Your task to perform on an android device: add a contact Image 0: 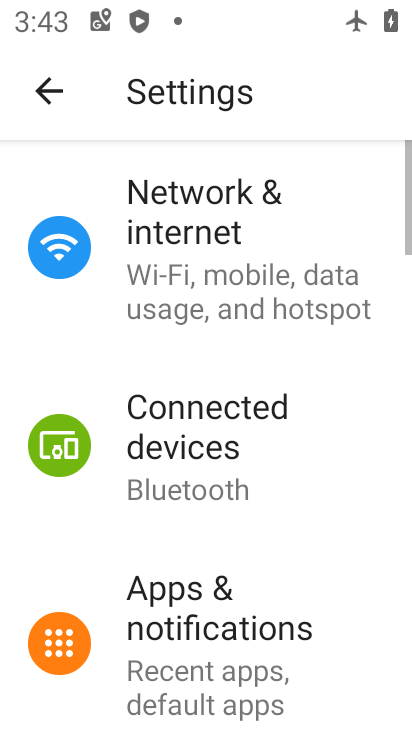
Step 0: press home button
Your task to perform on an android device: add a contact Image 1: 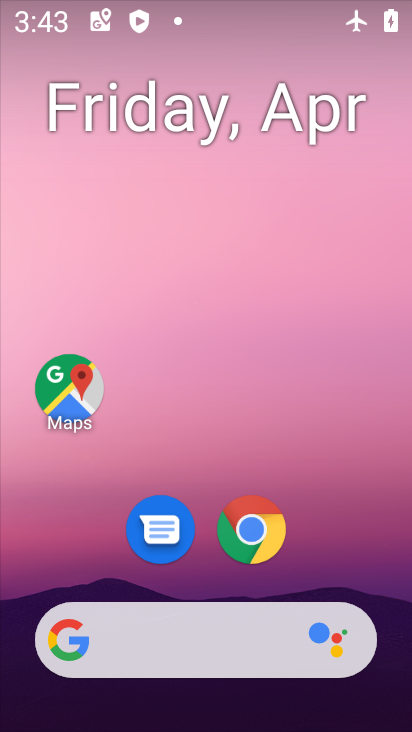
Step 1: drag from (312, 541) to (345, 176)
Your task to perform on an android device: add a contact Image 2: 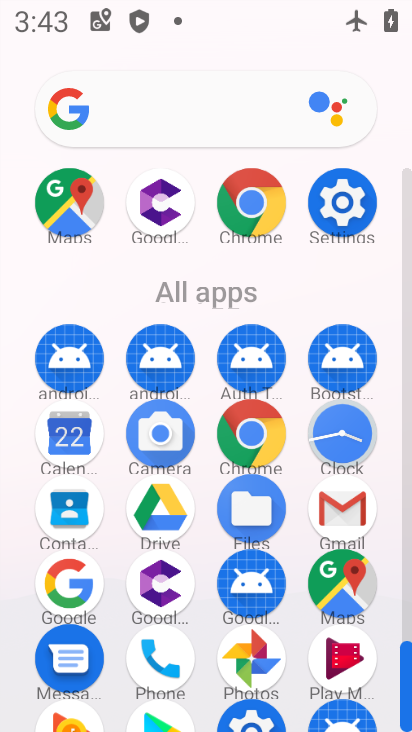
Step 2: click (72, 513)
Your task to perform on an android device: add a contact Image 3: 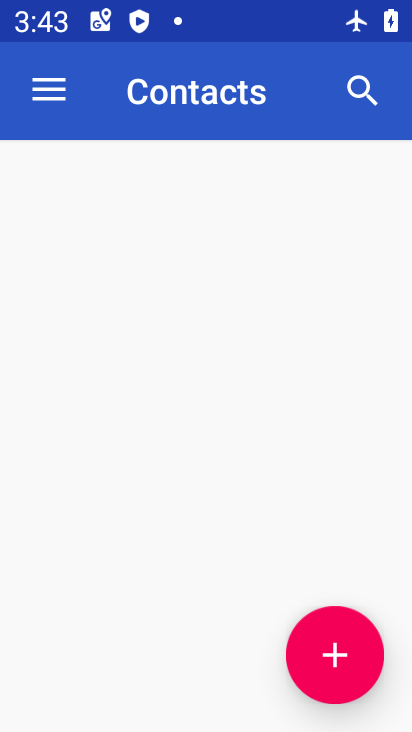
Step 3: click (337, 657)
Your task to perform on an android device: add a contact Image 4: 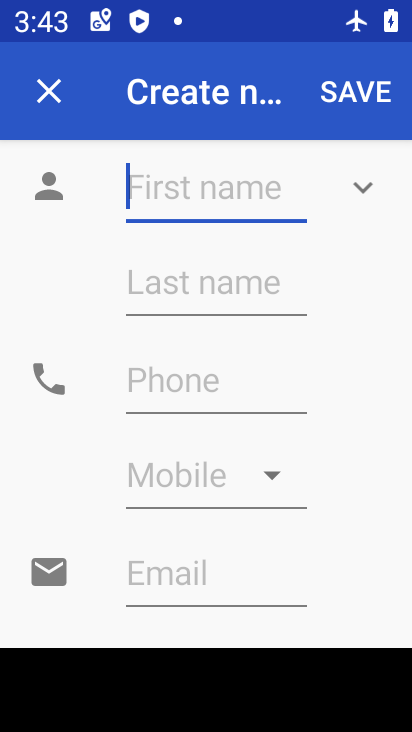
Step 4: type "jkjkioioipopopo"
Your task to perform on an android device: add a contact Image 5: 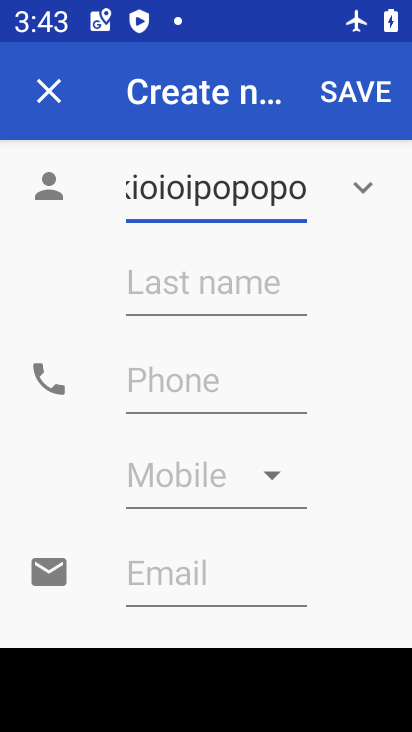
Step 5: click (166, 386)
Your task to perform on an android device: add a contact Image 6: 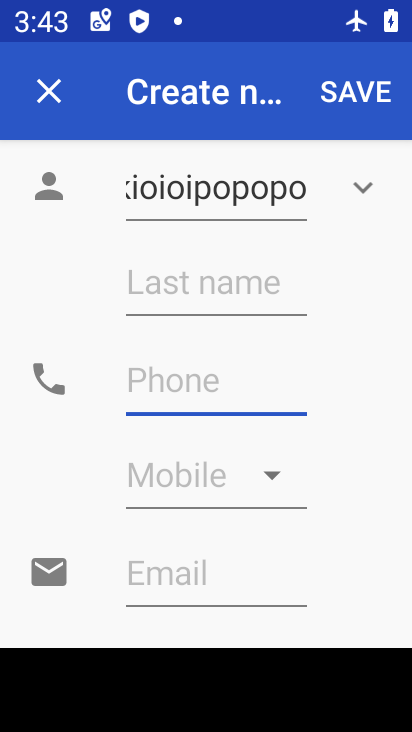
Step 6: type "9876543214"
Your task to perform on an android device: add a contact Image 7: 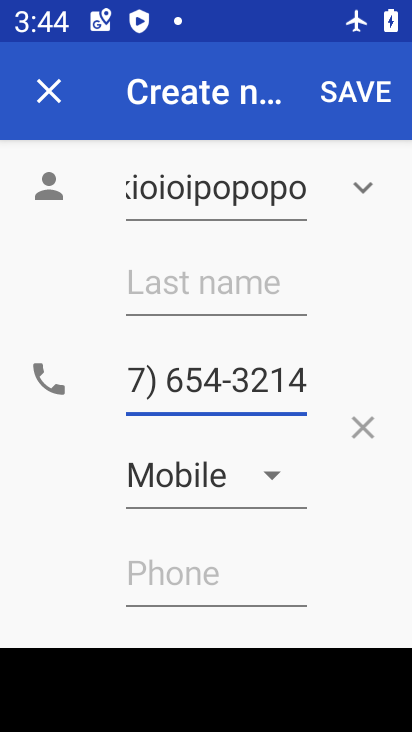
Step 7: click (353, 105)
Your task to perform on an android device: add a contact Image 8: 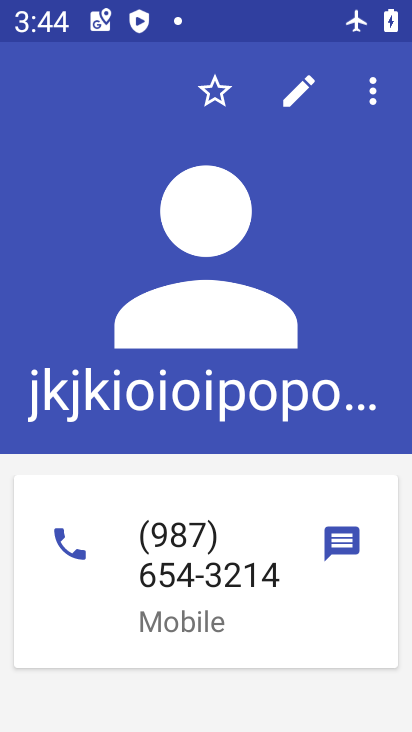
Step 8: task complete